Your task to perform on an android device: Is it going to rain today? Image 0: 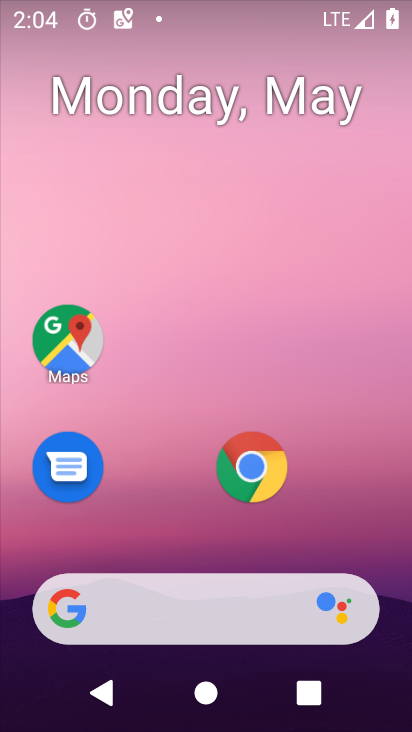
Step 0: drag from (195, 517) to (169, 9)
Your task to perform on an android device: Is it going to rain today? Image 1: 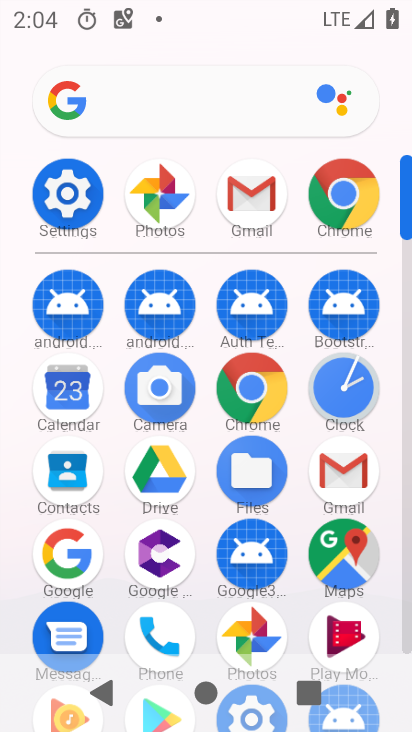
Step 1: drag from (207, 606) to (174, 314)
Your task to perform on an android device: Is it going to rain today? Image 2: 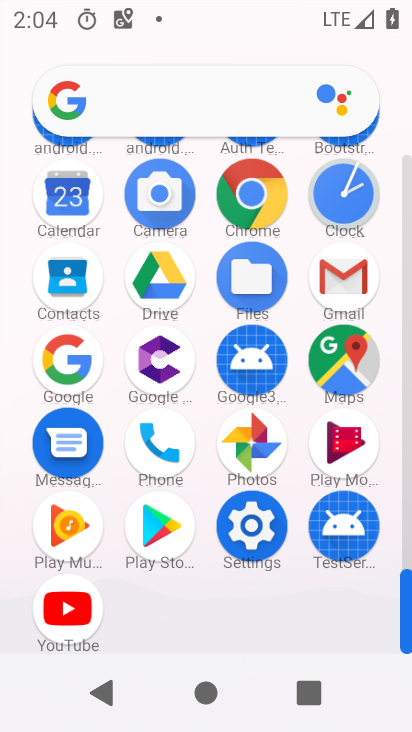
Step 2: click (120, 84)
Your task to perform on an android device: Is it going to rain today? Image 3: 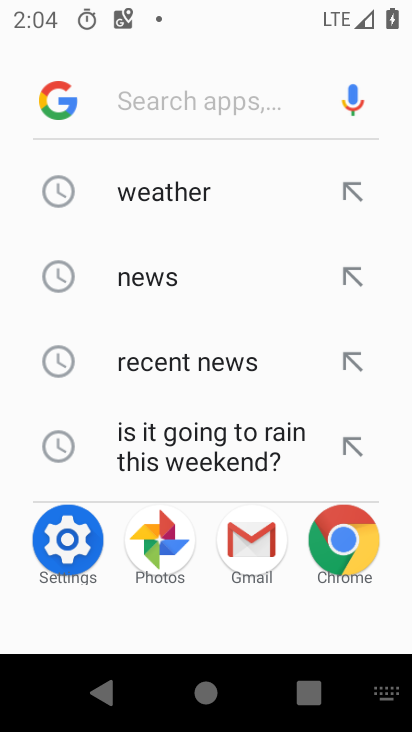
Step 3: type "rain today"
Your task to perform on an android device: Is it going to rain today? Image 4: 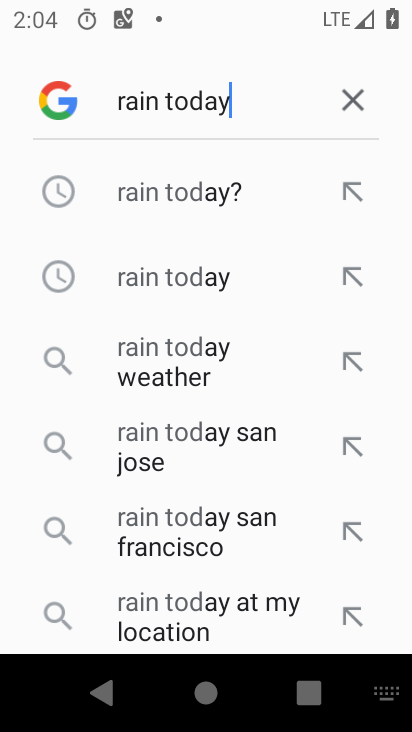
Step 4: type ""
Your task to perform on an android device: Is it going to rain today? Image 5: 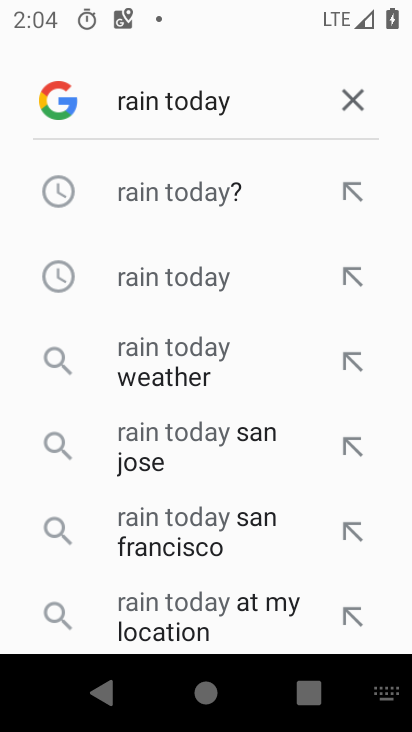
Step 5: click (167, 188)
Your task to perform on an android device: Is it going to rain today? Image 6: 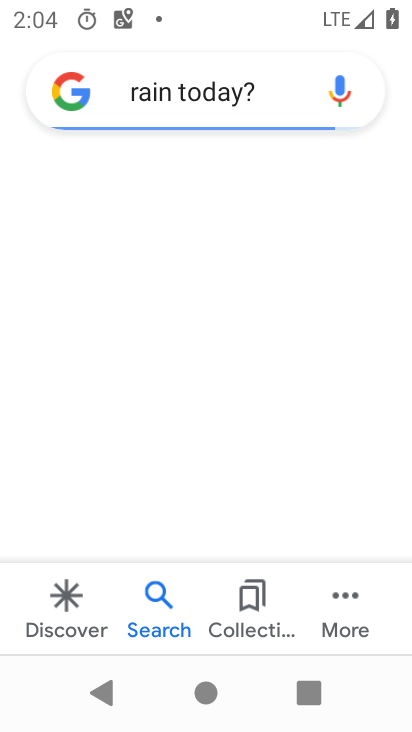
Step 6: task complete